Your task to perform on an android device: Play the new Beyonce video on YouTube Image 0: 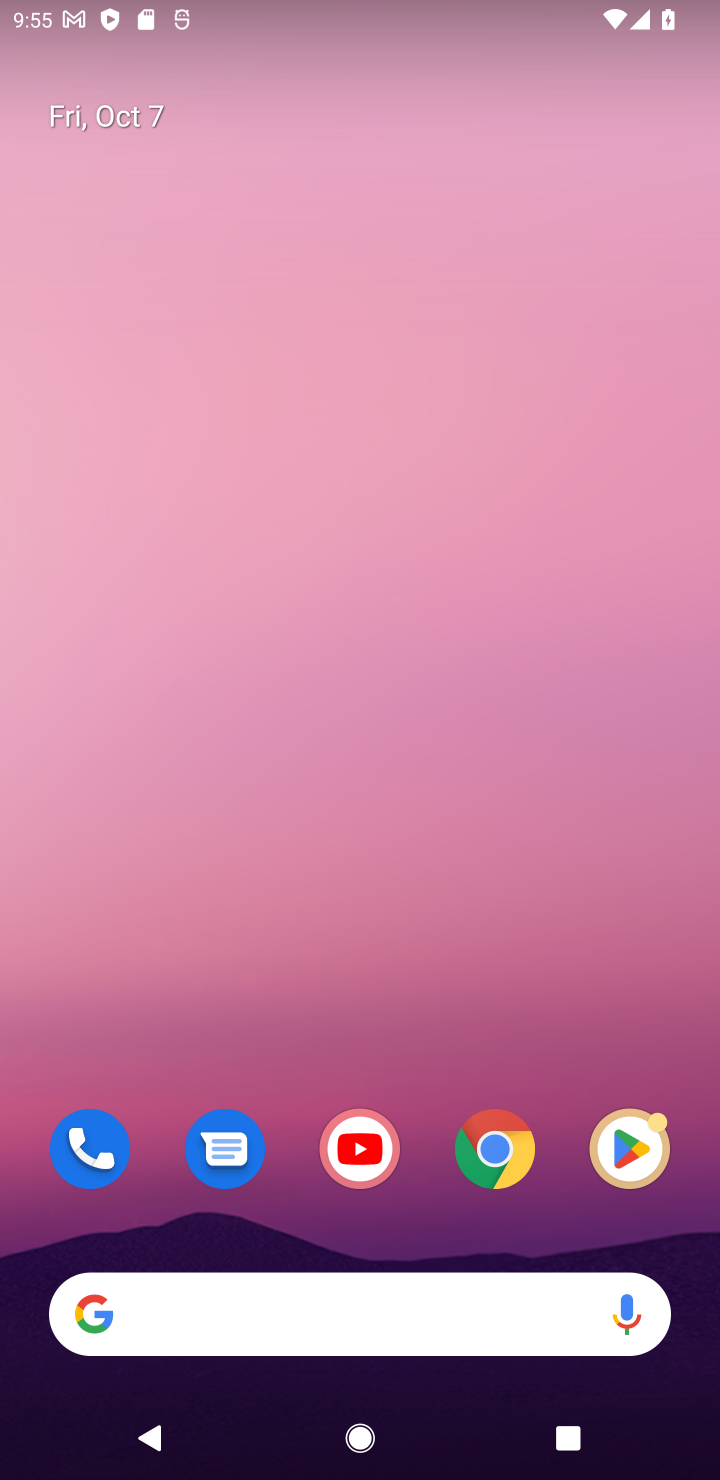
Step 0: click (362, 1143)
Your task to perform on an android device: Play the new Beyonce video on YouTube Image 1: 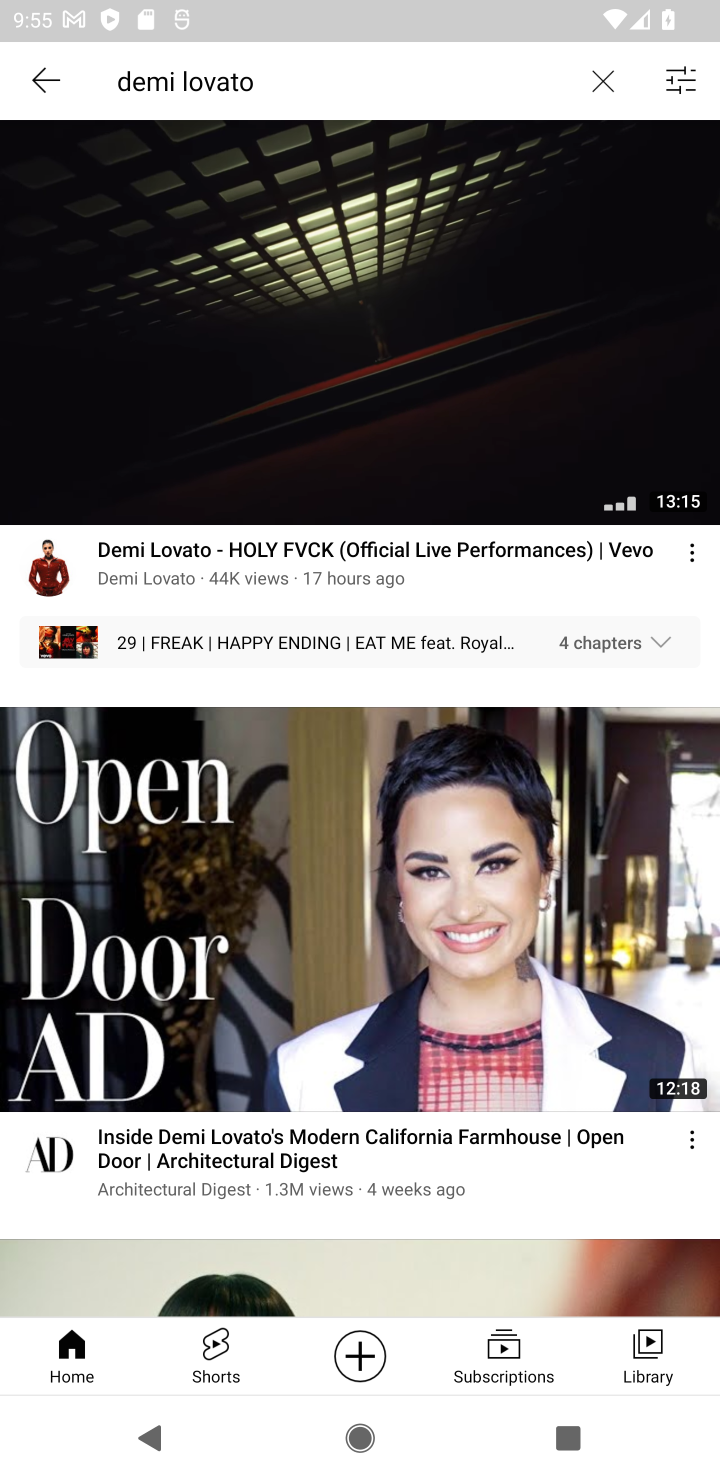
Step 1: click (583, 100)
Your task to perform on an android device: Play the new Beyonce video on YouTube Image 2: 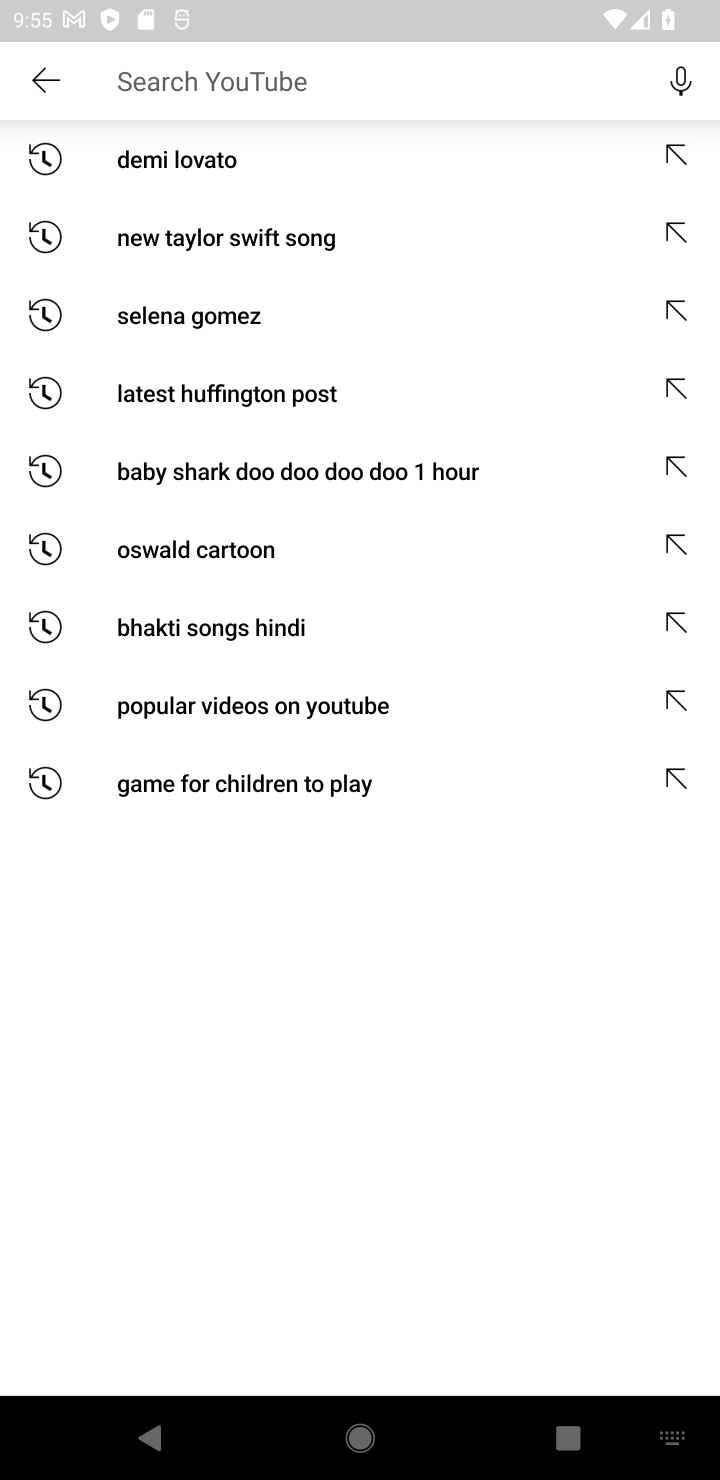
Step 2: type "Beyonce video"
Your task to perform on an android device: Play the new Beyonce video on YouTube Image 3: 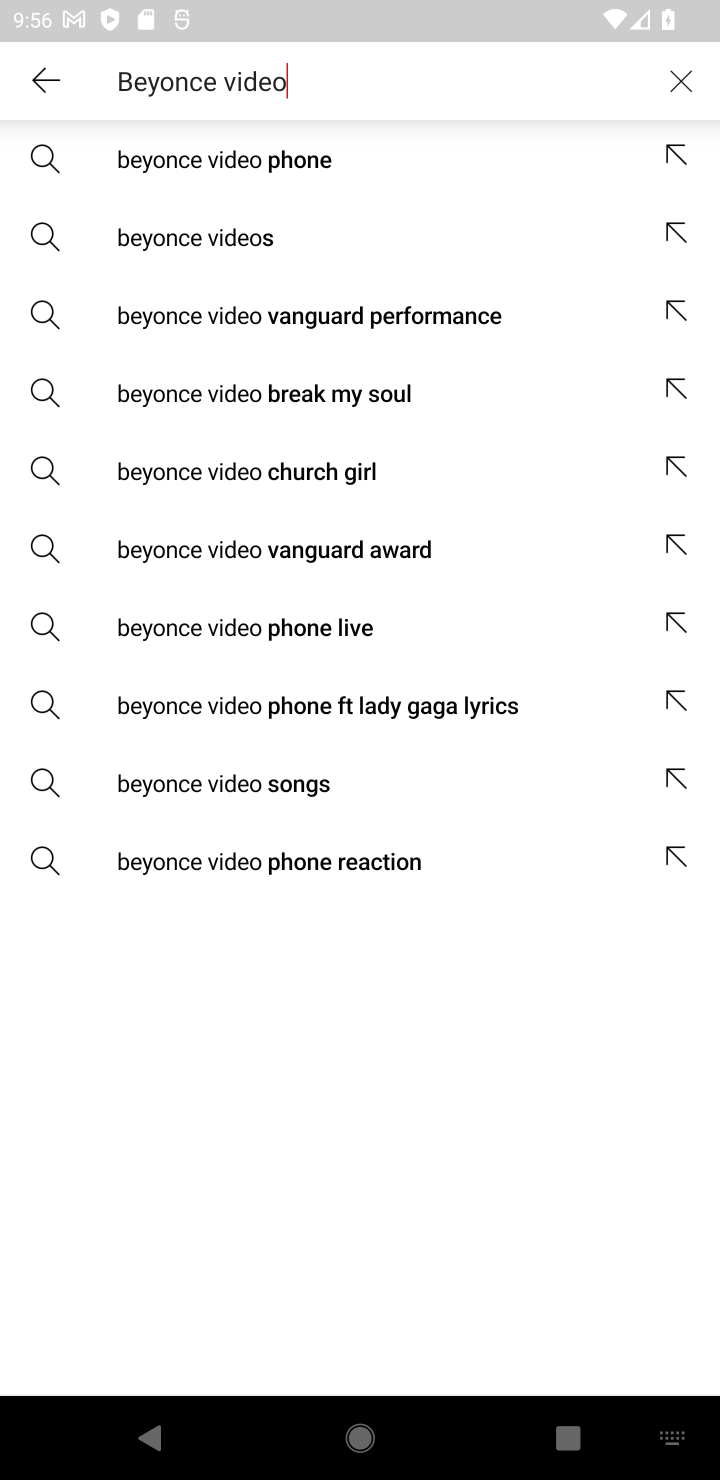
Step 3: click (357, 129)
Your task to perform on an android device: Play the new Beyonce video on YouTube Image 4: 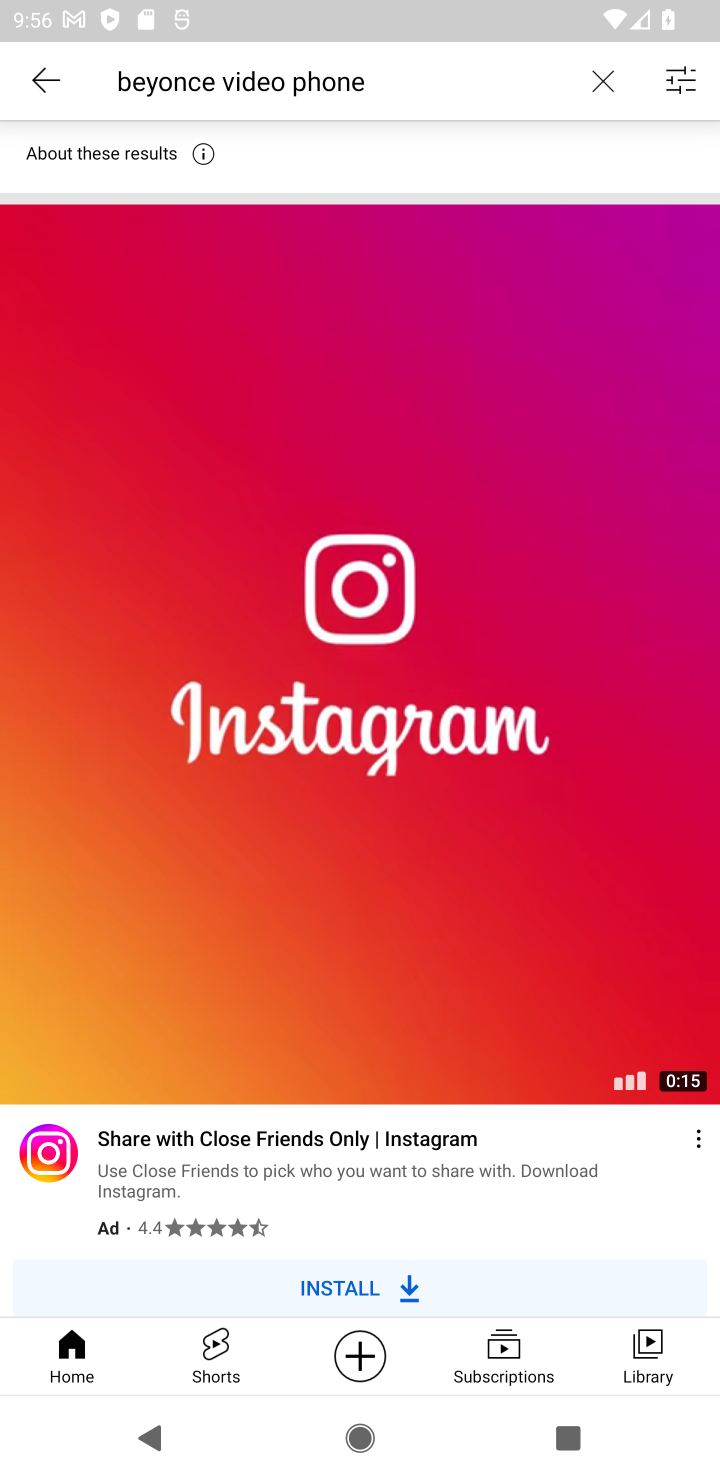
Step 4: task complete